Your task to perform on an android device: Go to Maps Image 0: 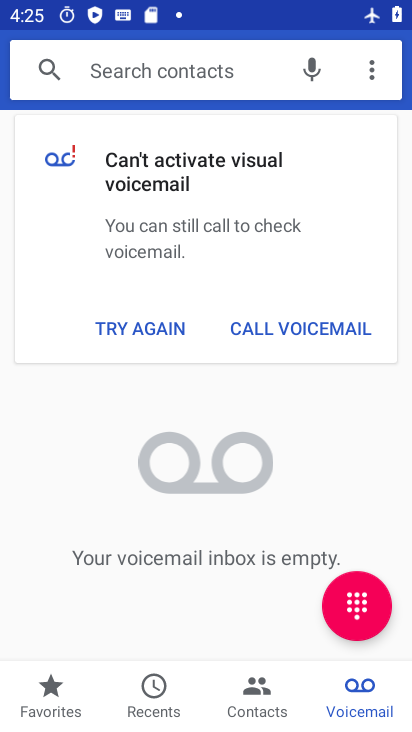
Step 0: press home button
Your task to perform on an android device: Go to Maps Image 1: 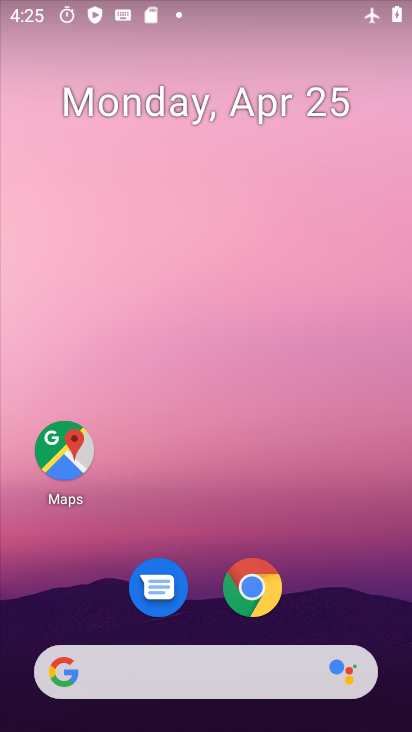
Step 1: drag from (331, 558) to (275, 63)
Your task to perform on an android device: Go to Maps Image 2: 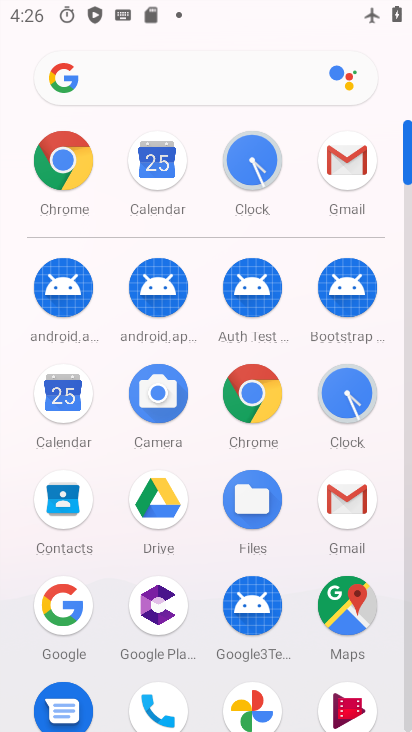
Step 2: click (347, 610)
Your task to perform on an android device: Go to Maps Image 3: 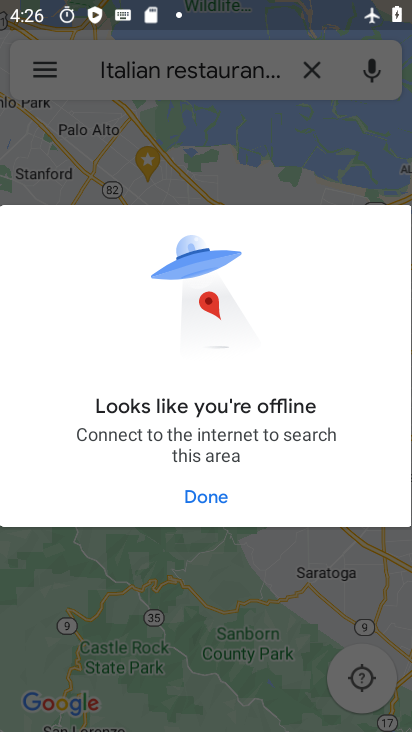
Step 3: task complete